Your task to perform on an android device: Search for the best selling TV on Best Buy. Image 0: 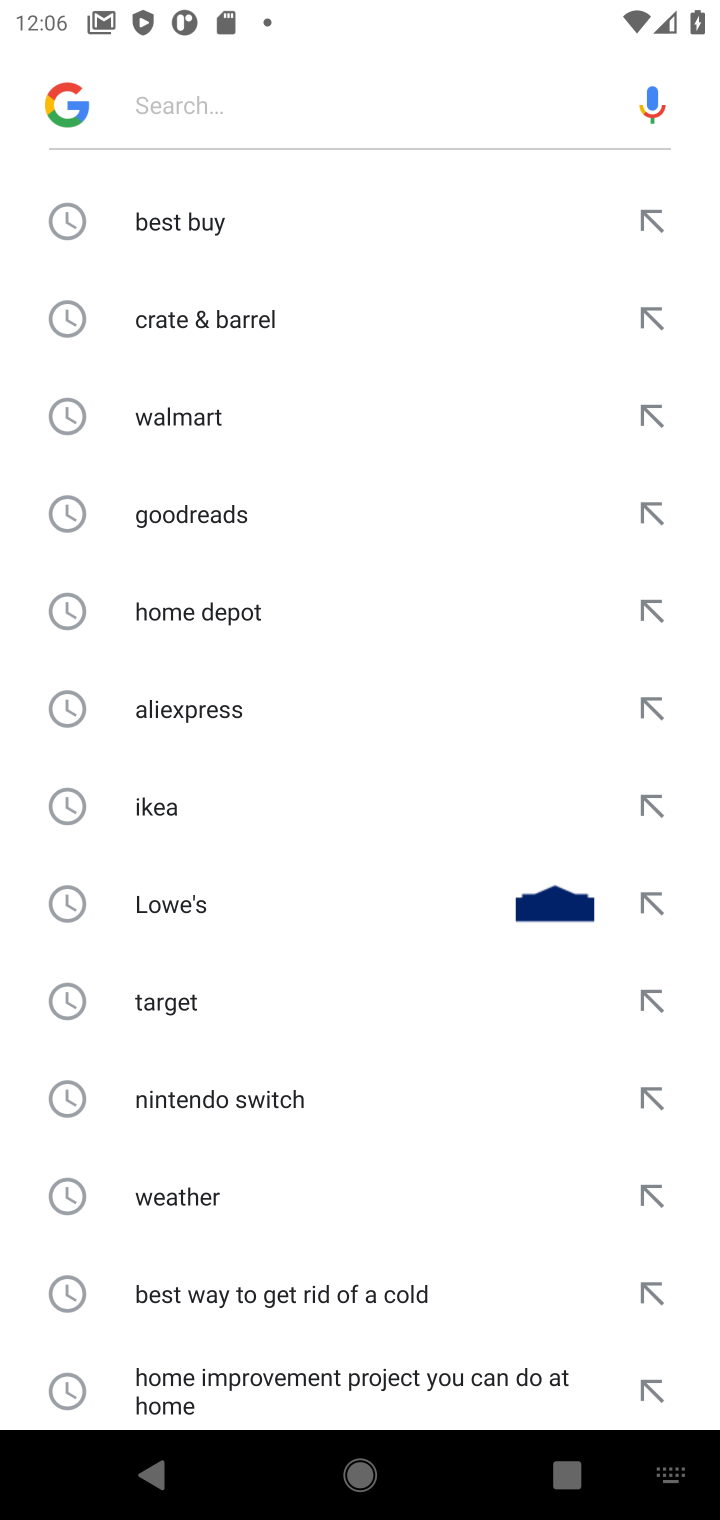
Step 0: press home button
Your task to perform on an android device: Search for the best selling TV on Best Buy. Image 1: 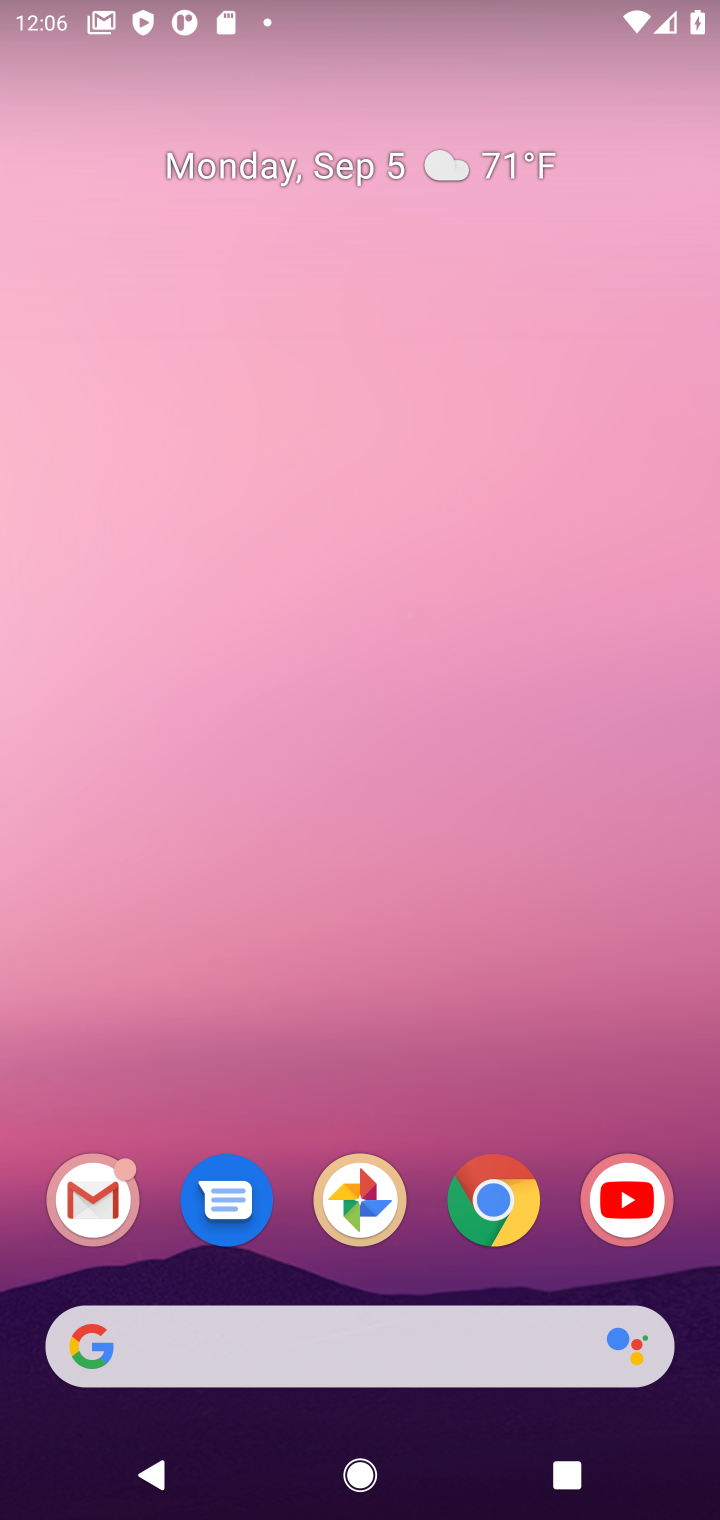
Step 1: click (503, 1200)
Your task to perform on an android device: Search for the best selling TV on Best Buy. Image 2: 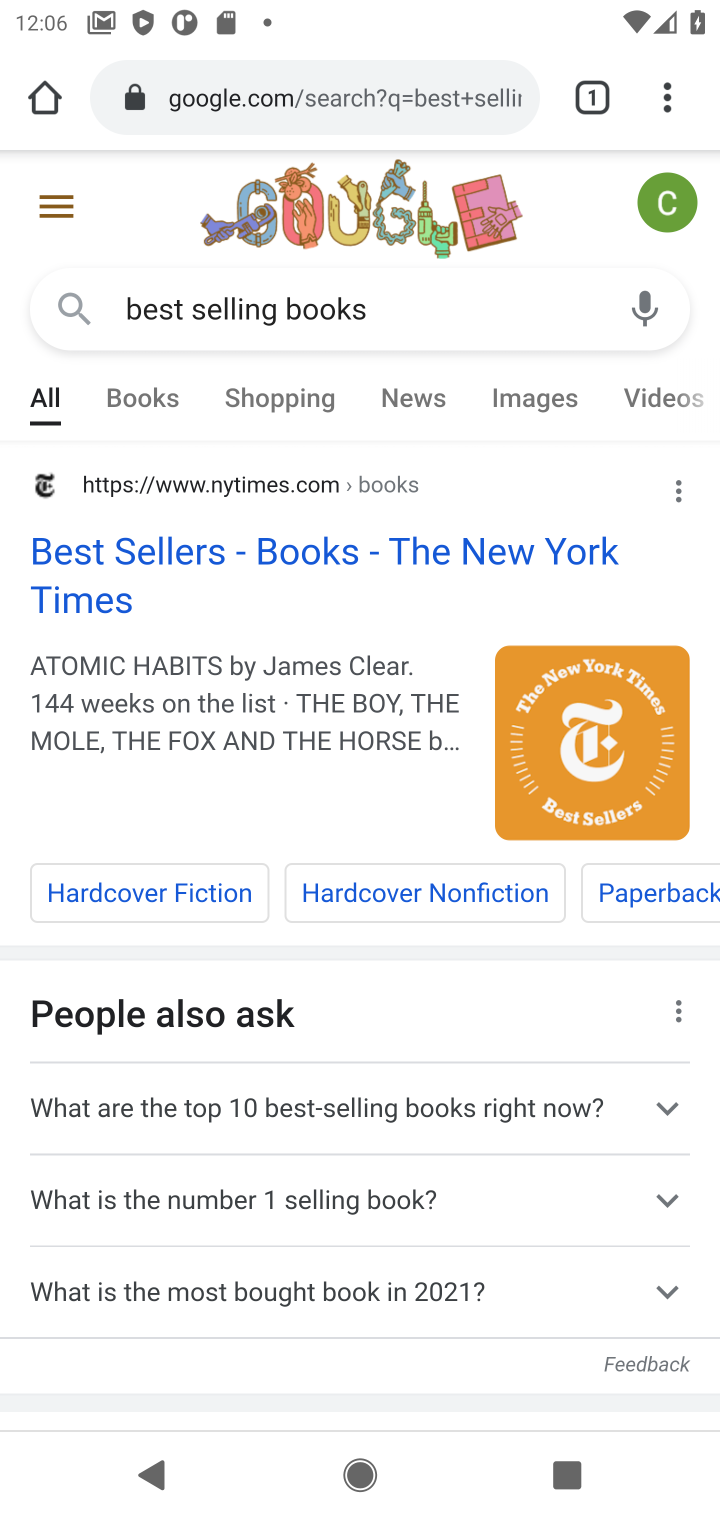
Step 2: click (367, 110)
Your task to perform on an android device: Search for the best selling TV on Best Buy. Image 3: 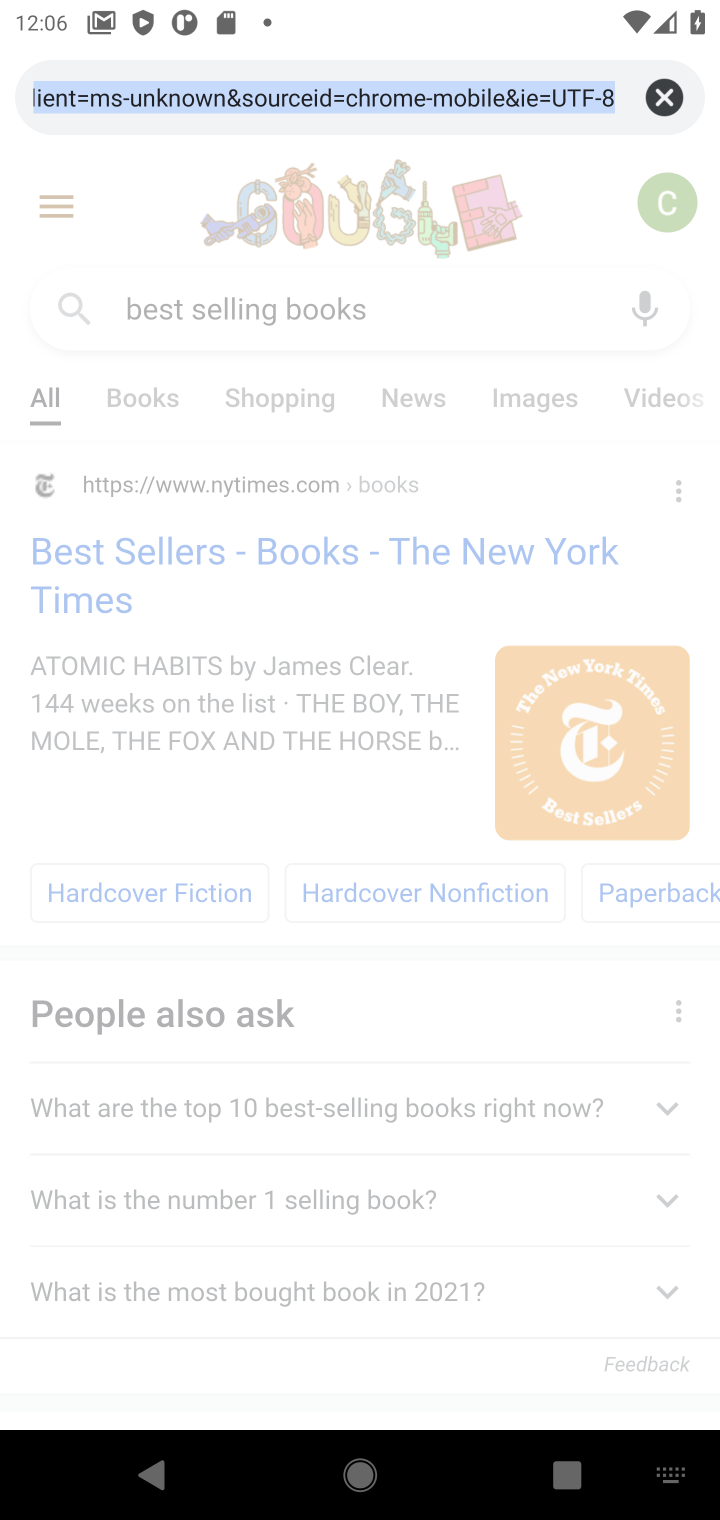
Step 3: type "best buy"
Your task to perform on an android device: Search for the best selling TV on Best Buy. Image 4: 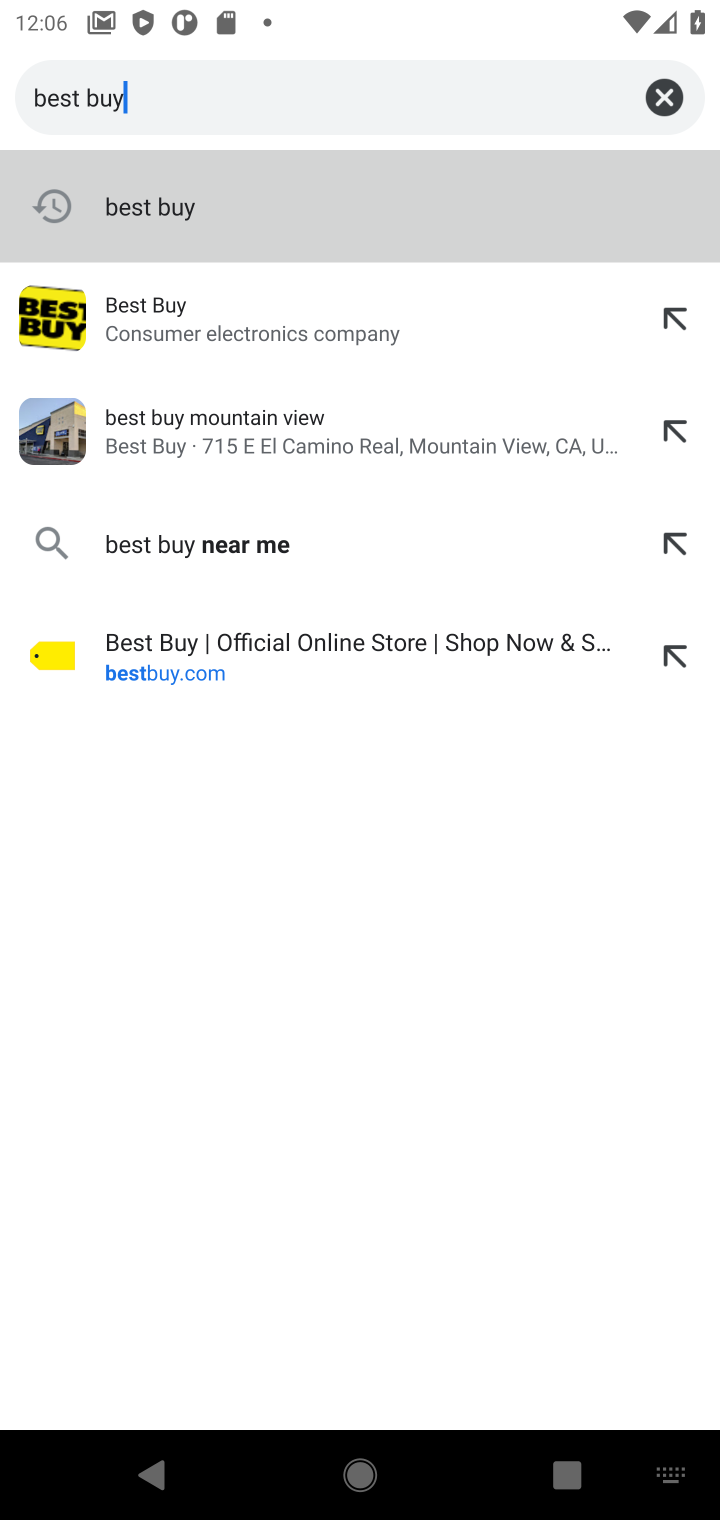
Step 4: click (79, 312)
Your task to perform on an android device: Search for the best selling TV on Best Buy. Image 5: 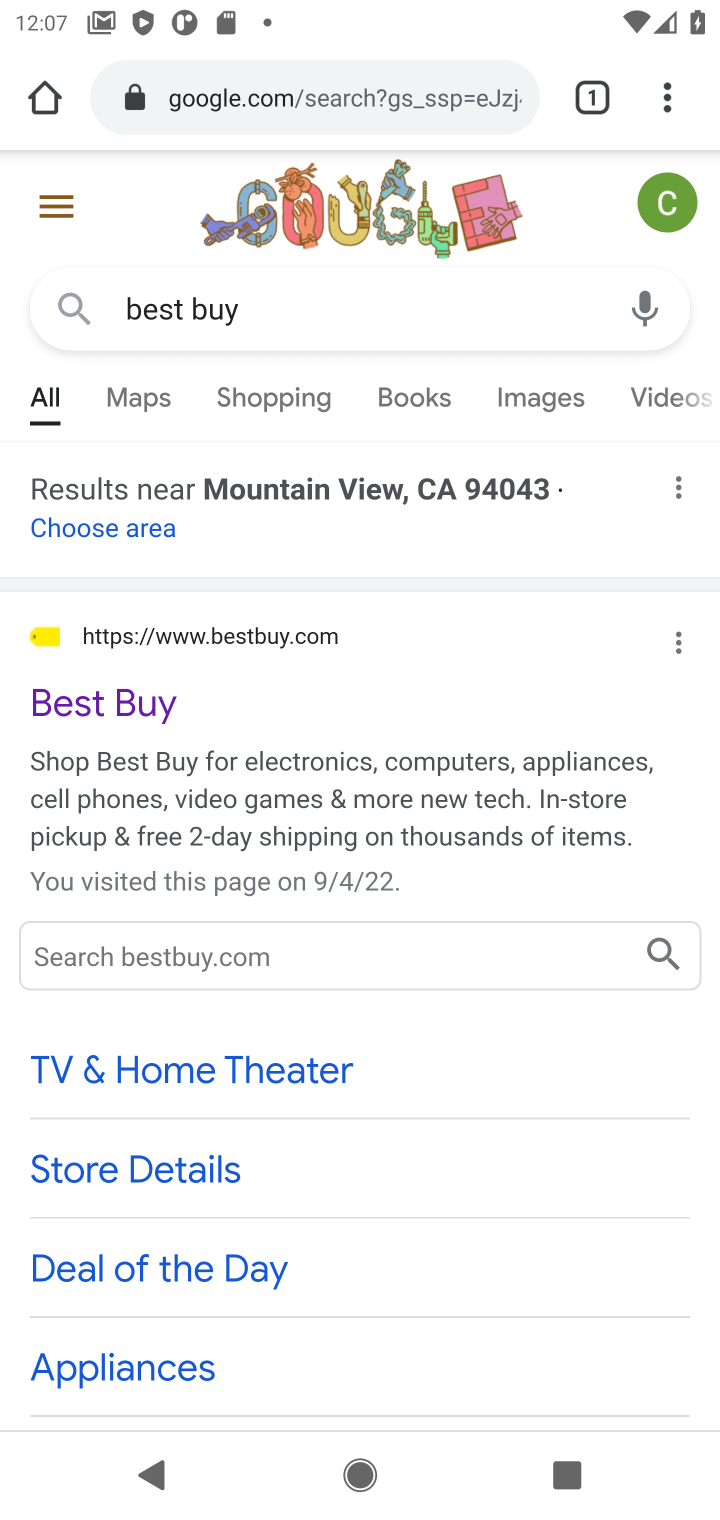
Step 5: click (127, 691)
Your task to perform on an android device: Search for the best selling TV on Best Buy. Image 6: 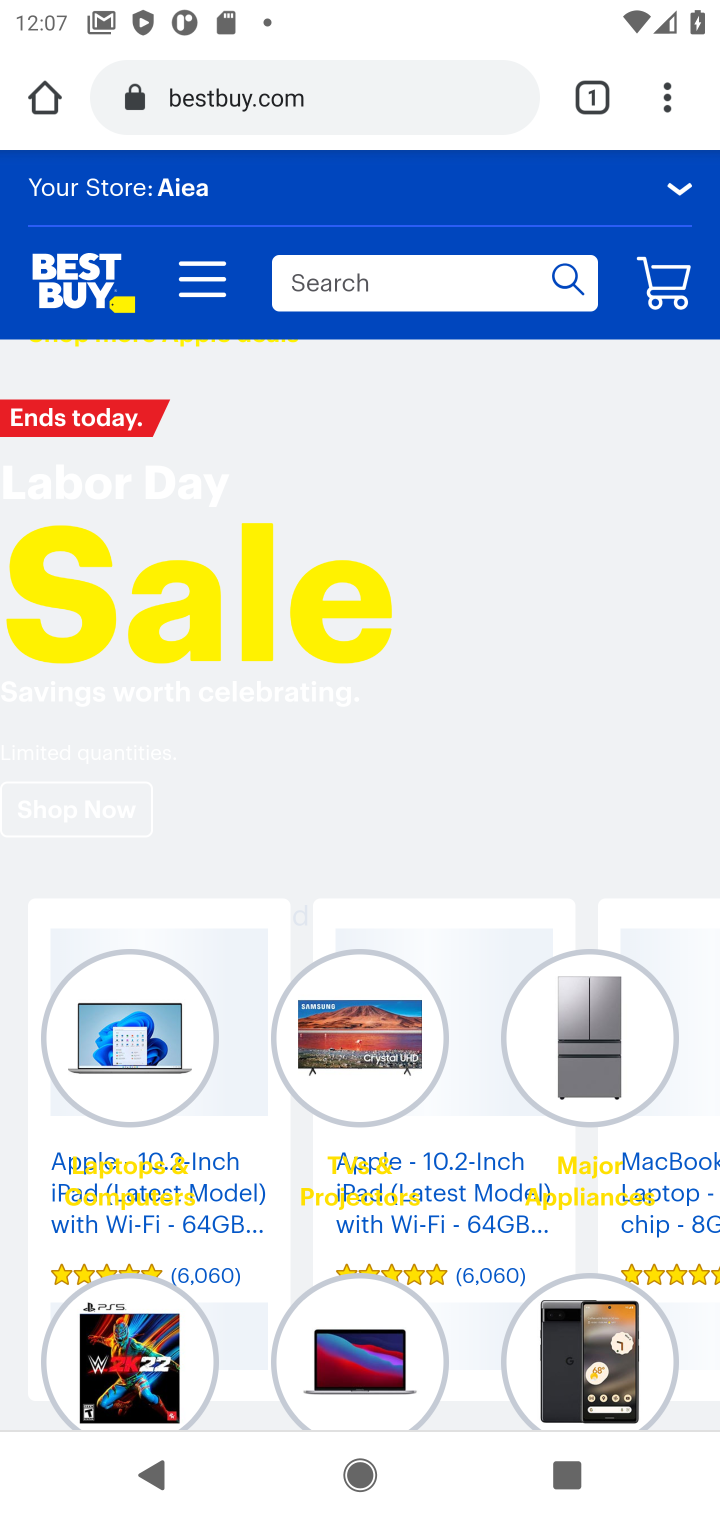
Step 6: click (559, 290)
Your task to perform on an android device: Search for the best selling TV on Best Buy. Image 7: 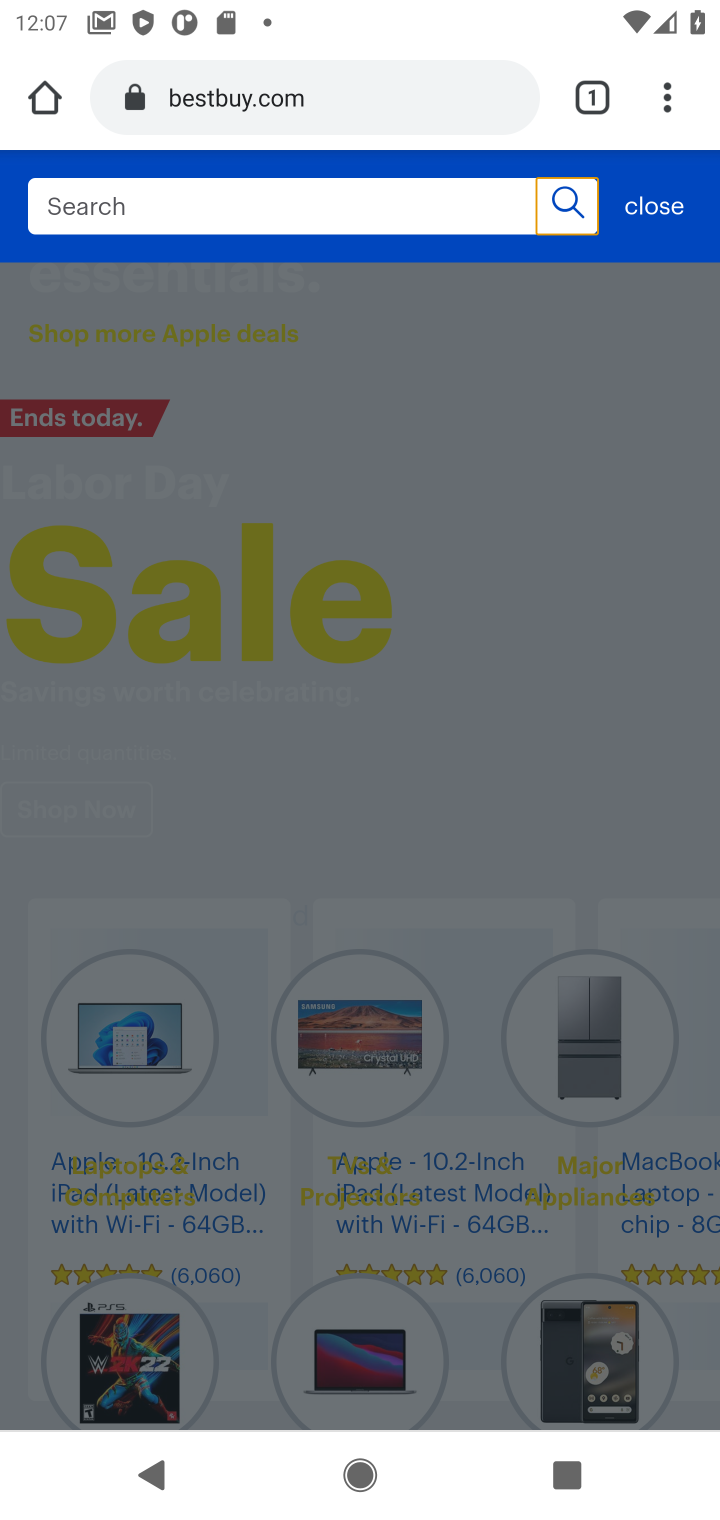
Step 7: click (288, 200)
Your task to perform on an android device: Search for the best selling TV on Best Buy. Image 8: 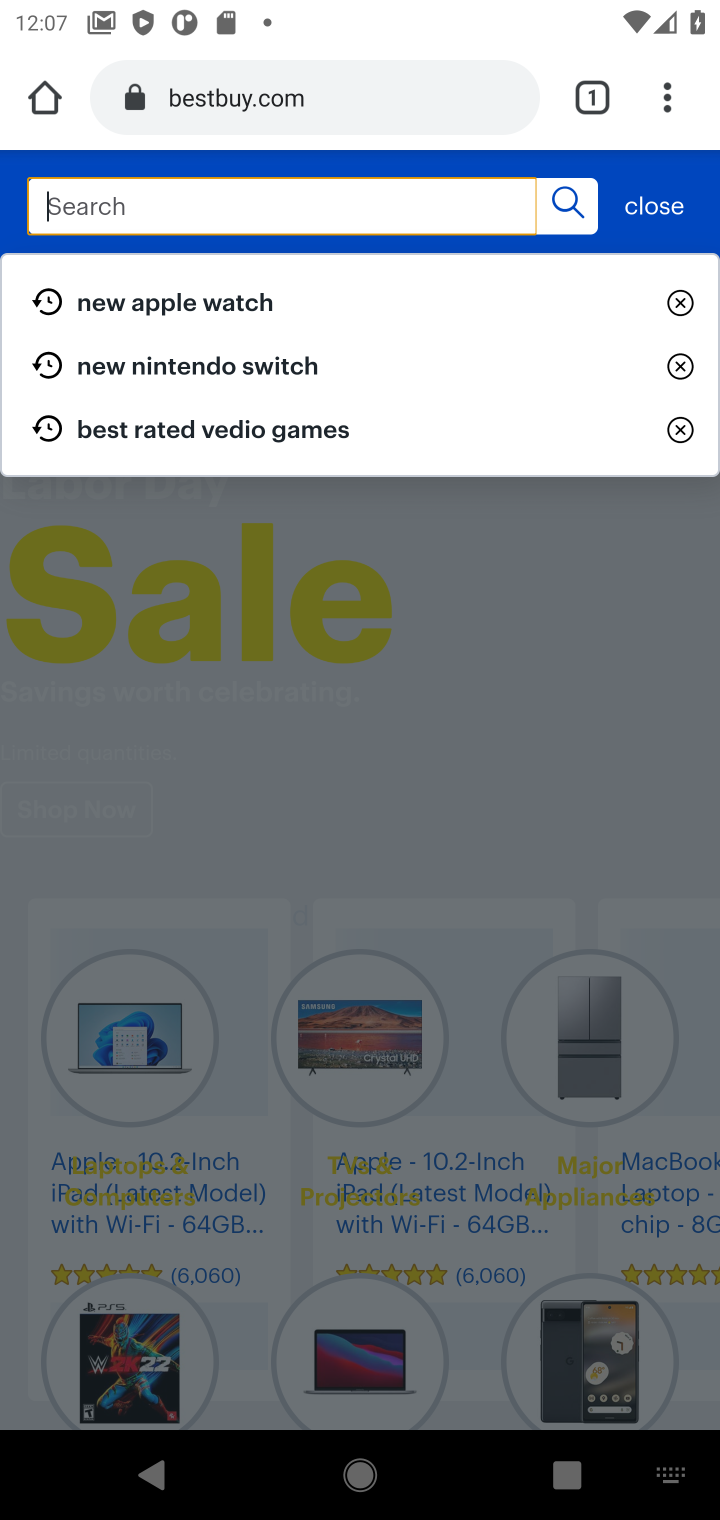
Step 8: type "best selling TV"
Your task to perform on an android device: Search for the best selling TV on Best Buy. Image 9: 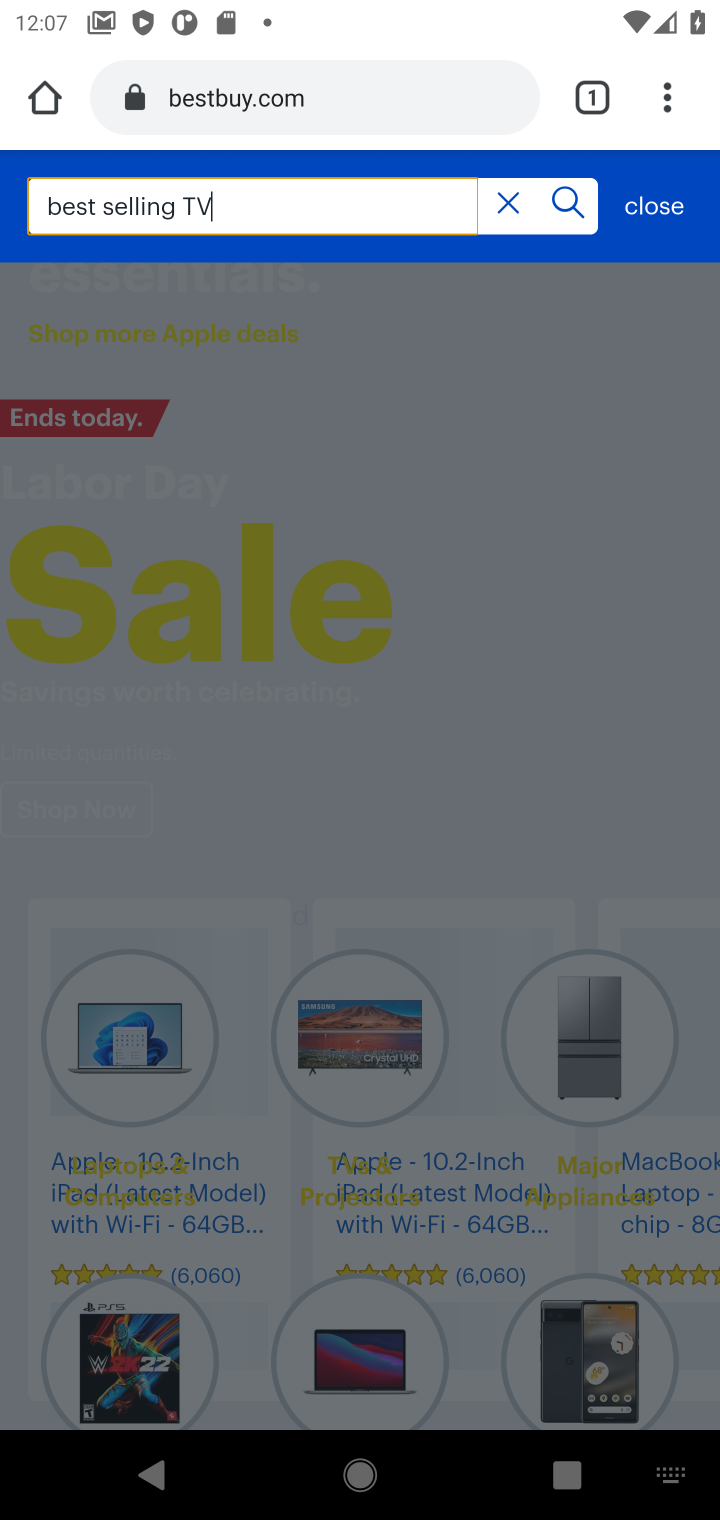
Step 9: click (558, 204)
Your task to perform on an android device: Search for the best selling TV on Best Buy. Image 10: 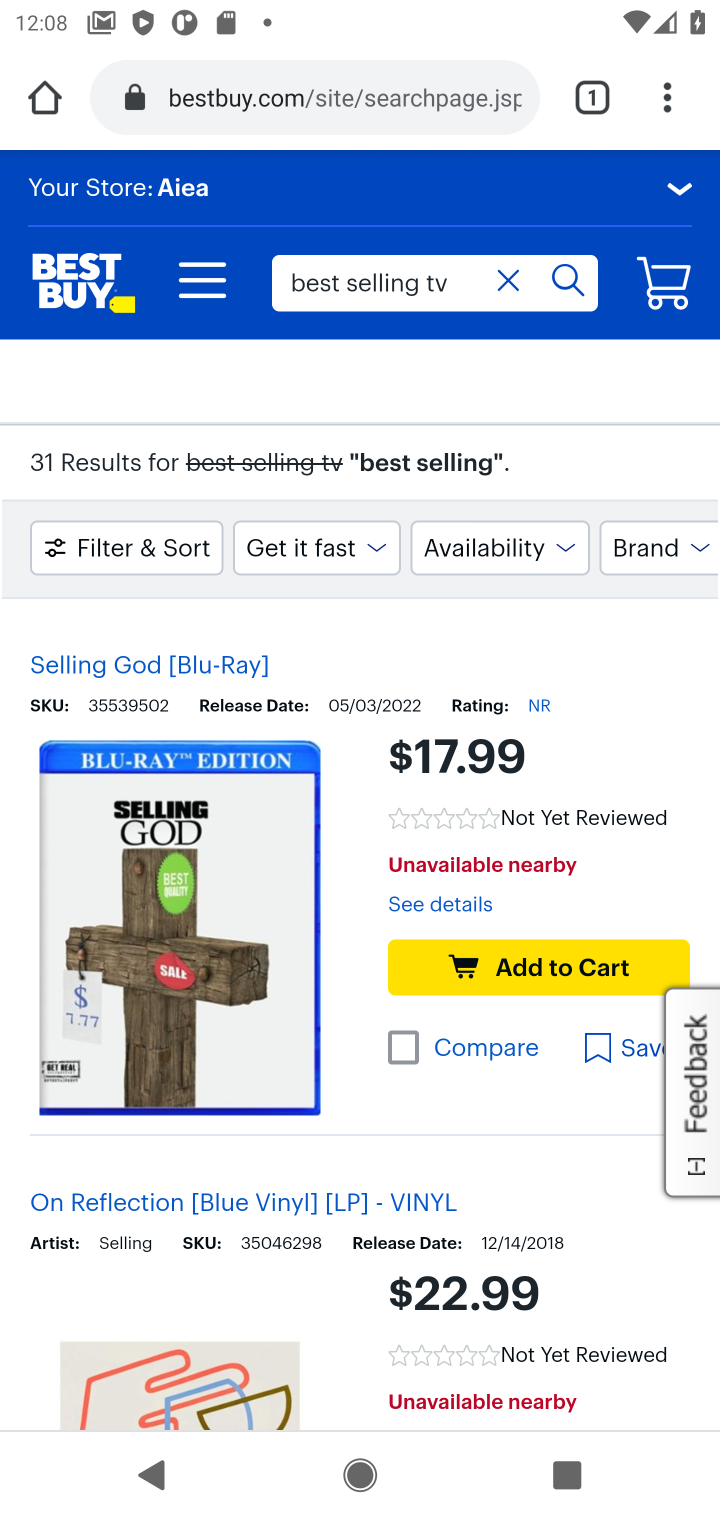
Step 10: task complete